Your task to perform on an android device: Open maps Image 0: 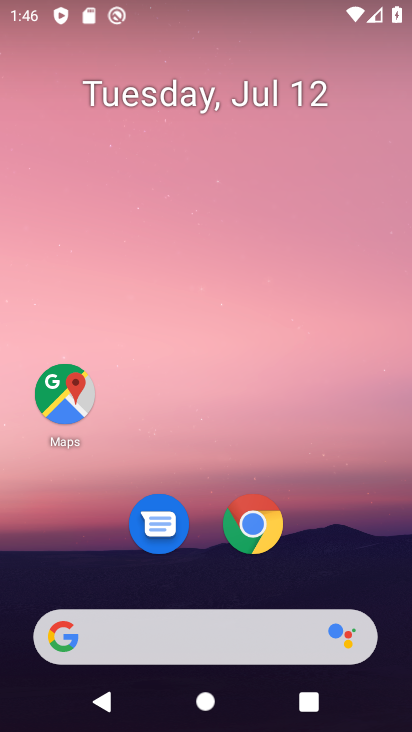
Step 0: click (65, 388)
Your task to perform on an android device: Open maps Image 1: 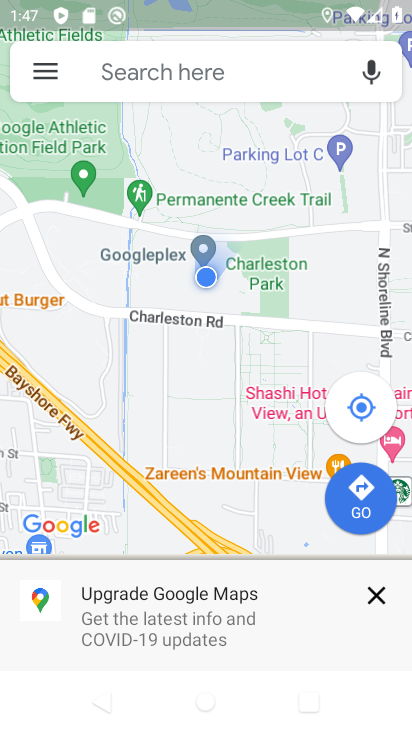
Step 1: task complete